Your task to perform on an android device: choose inbox layout in the gmail app Image 0: 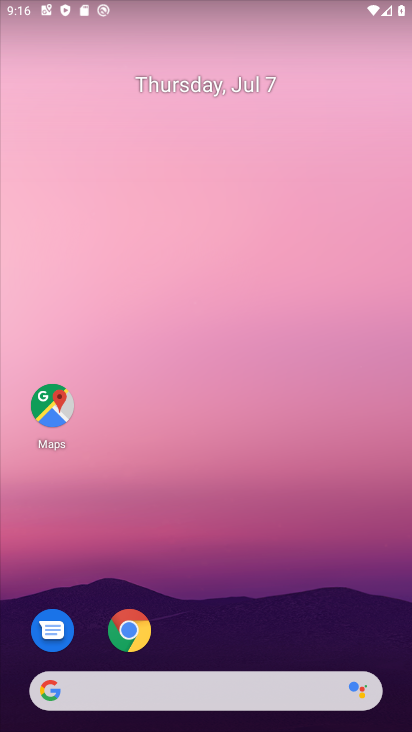
Step 0: drag from (145, 671) to (144, 320)
Your task to perform on an android device: choose inbox layout in the gmail app Image 1: 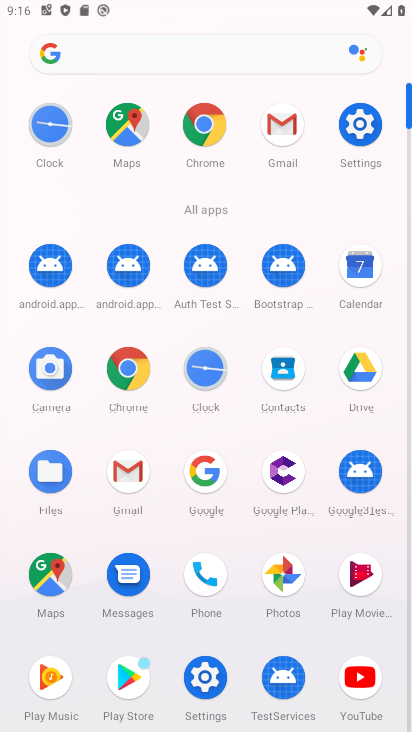
Step 1: click (284, 132)
Your task to perform on an android device: choose inbox layout in the gmail app Image 2: 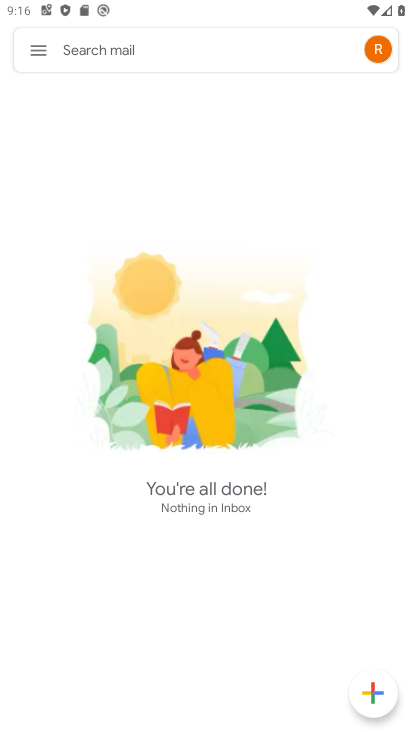
Step 2: click (39, 53)
Your task to perform on an android device: choose inbox layout in the gmail app Image 3: 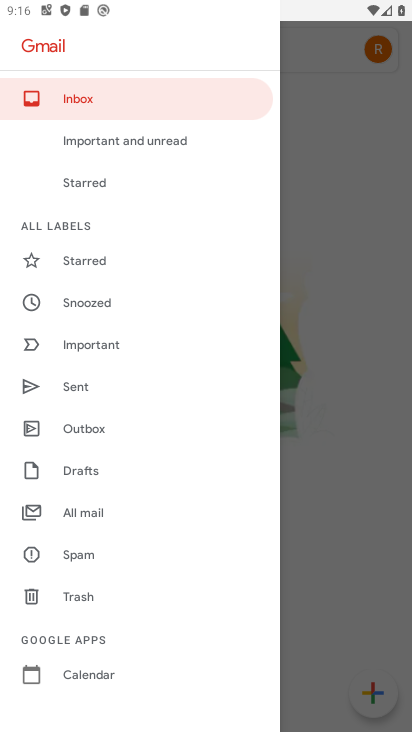
Step 3: drag from (79, 587) to (66, 308)
Your task to perform on an android device: choose inbox layout in the gmail app Image 4: 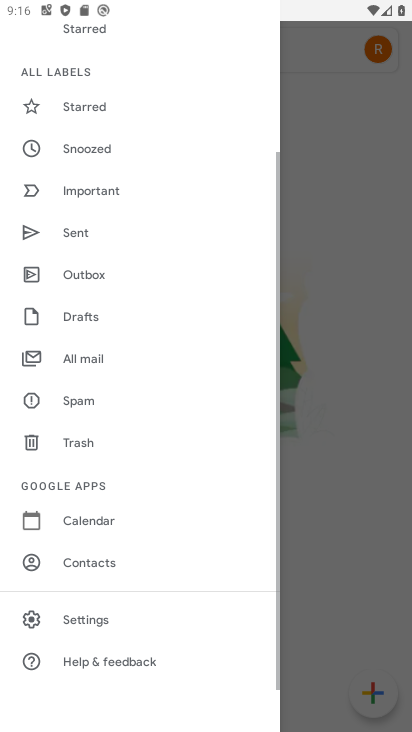
Step 4: click (78, 623)
Your task to perform on an android device: choose inbox layout in the gmail app Image 5: 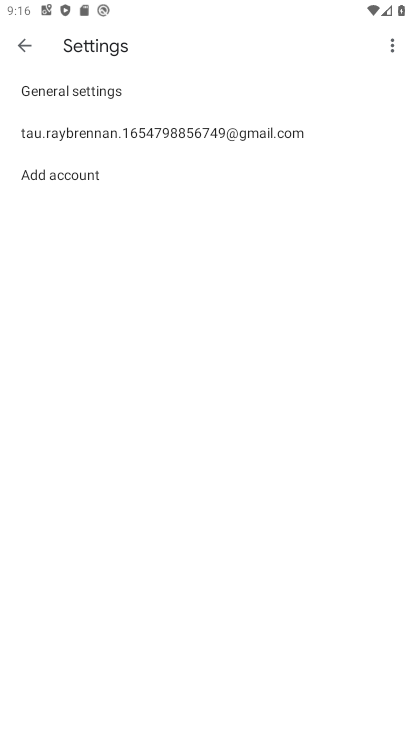
Step 5: click (65, 132)
Your task to perform on an android device: choose inbox layout in the gmail app Image 6: 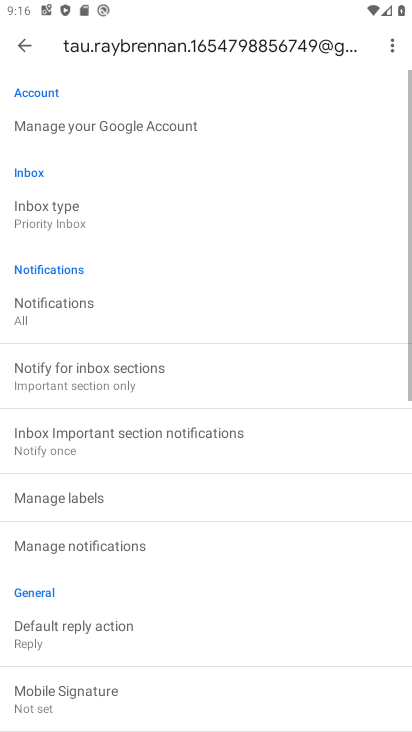
Step 6: click (62, 217)
Your task to perform on an android device: choose inbox layout in the gmail app Image 7: 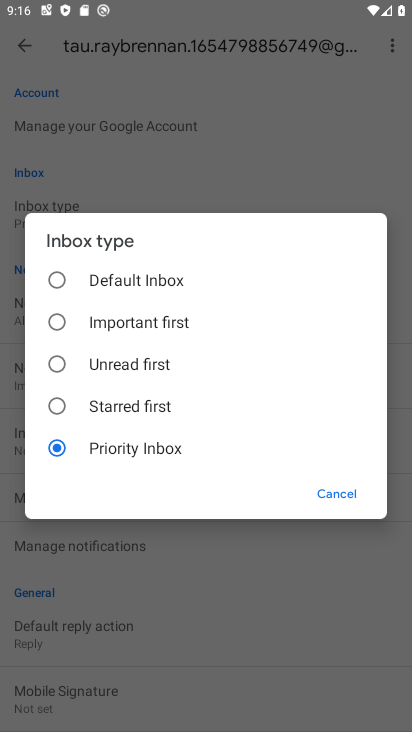
Step 7: click (92, 314)
Your task to perform on an android device: choose inbox layout in the gmail app Image 8: 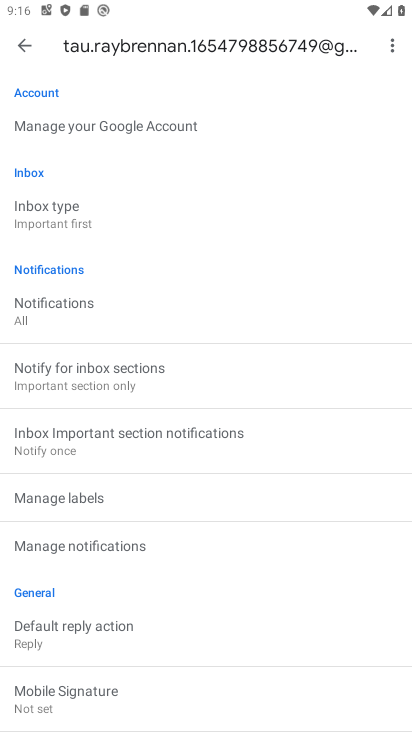
Step 8: task complete